Your task to perform on an android device: Open internet settings Image 0: 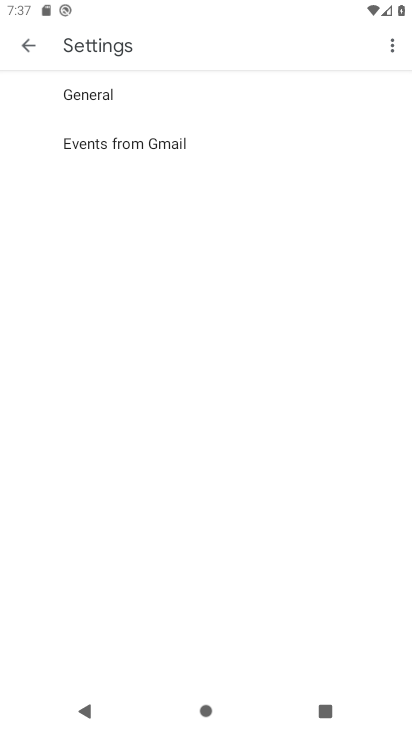
Step 0: press home button
Your task to perform on an android device: Open internet settings Image 1: 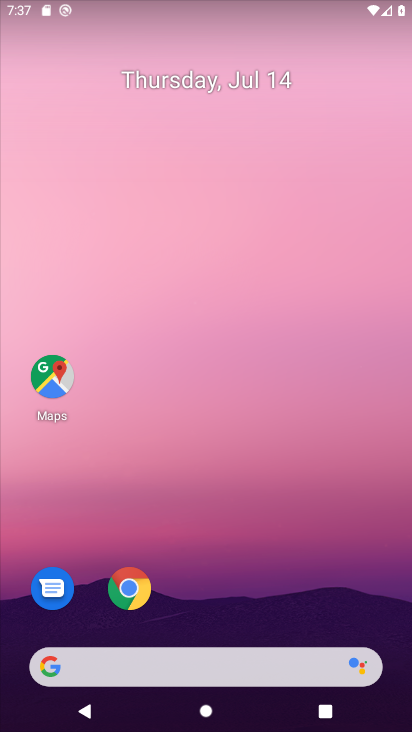
Step 1: drag from (368, 579) to (389, 89)
Your task to perform on an android device: Open internet settings Image 2: 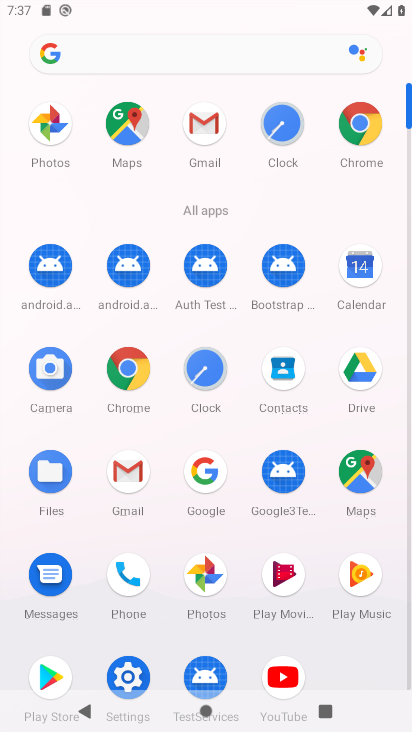
Step 2: drag from (385, 643) to (386, 462)
Your task to perform on an android device: Open internet settings Image 3: 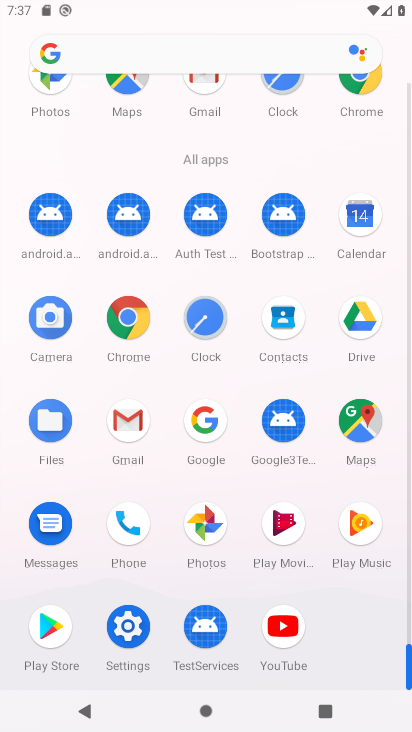
Step 3: click (132, 626)
Your task to perform on an android device: Open internet settings Image 4: 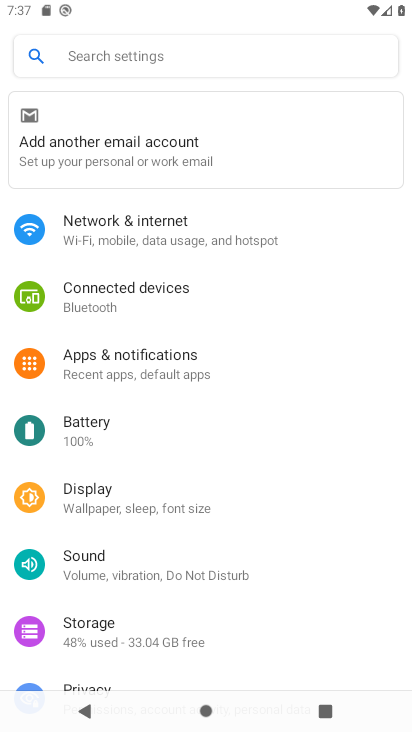
Step 4: drag from (329, 498) to (340, 415)
Your task to perform on an android device: Open internet settings Image 5: 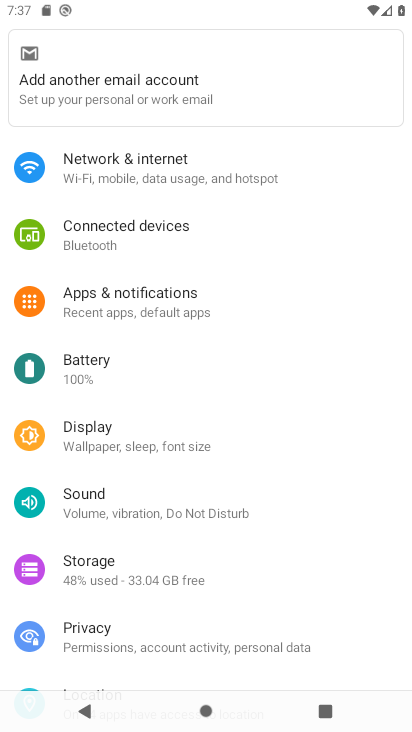
Step 5: drag from (343, 535) to (344, 416)
Your task to perform on an android device: Open internet settings Image 6: 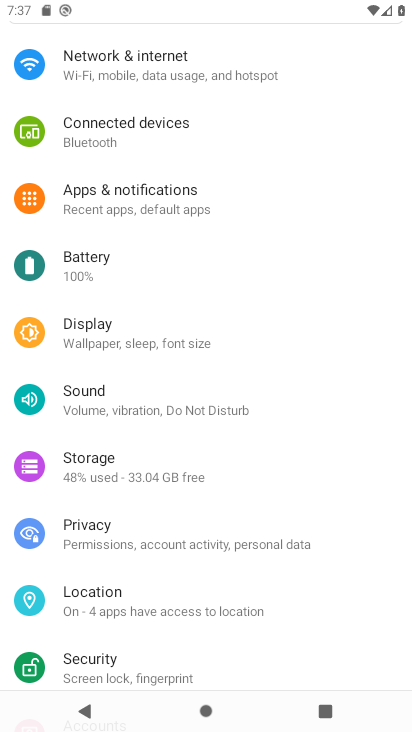
Step 6: drag from (346, 546) to (354, 479)
Your task to perform on an android device: Open internet settings Image 7: 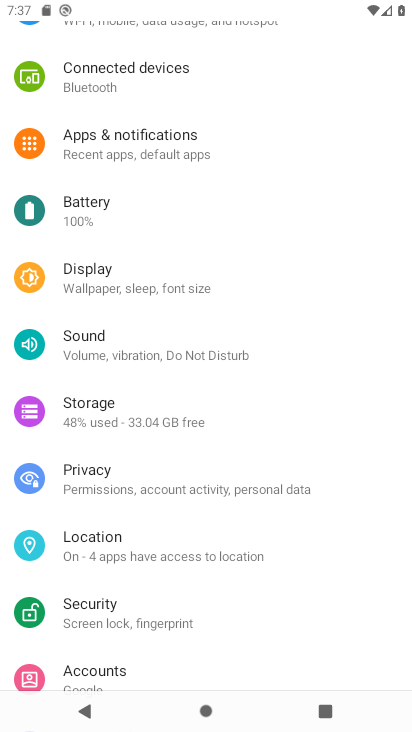
Step 7: drag from (354, 568) to (352, 366)
Your task to perform on an android device: Open internet settings Image 8: 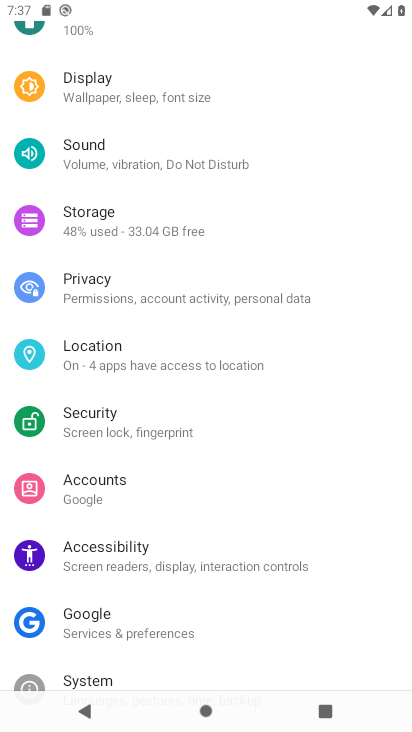
Step 8: drag from (342, 503) to (342, 313)
Your task to perform on an android device: Open internet settings Image 9: 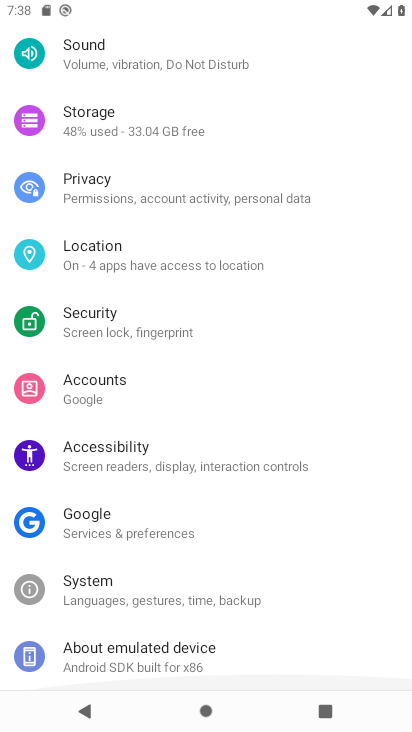
Step 9: drag from (345, 289) to (344, 380)
Your task to perform on an android device: Open internet settings Image 10: 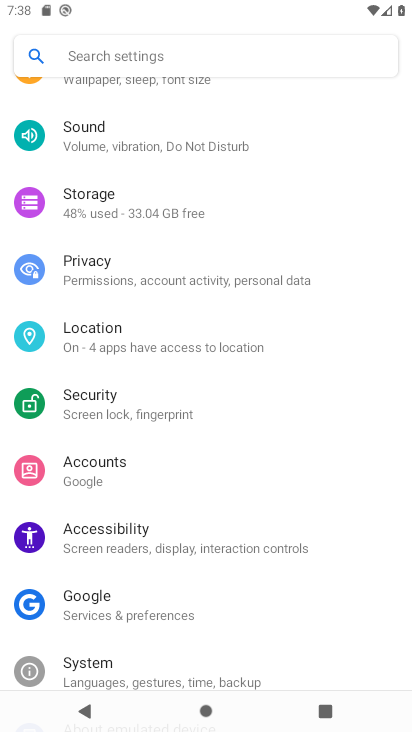
Step 10: drag from (338, 338) to (340, 399)
Your task to perform on an android device: Open internet settings Image 11: 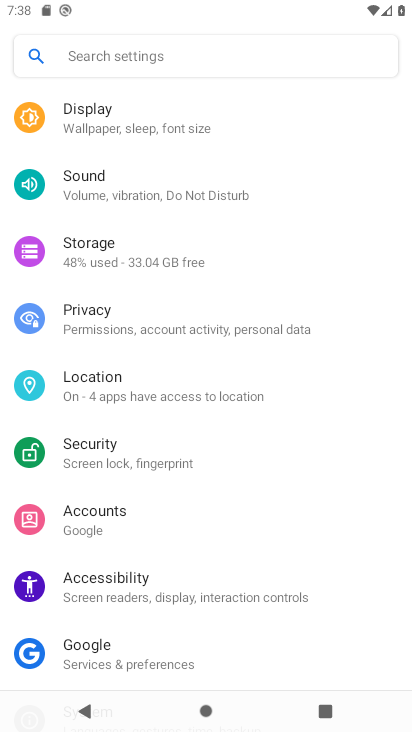
Step 11: drag from (336, 337) to (341, 413)
Your task to perform on an android device: Open internet settings Image 12: 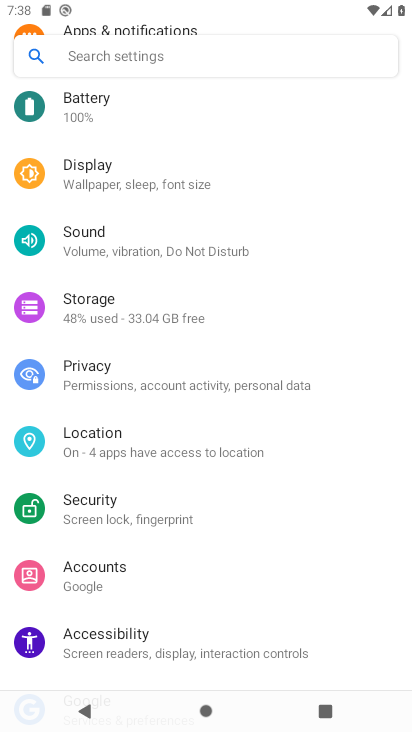
Step 12: drag from (339, 320) to (339, 412)
Your task to perform on an android device: Open internet settings Image 13: 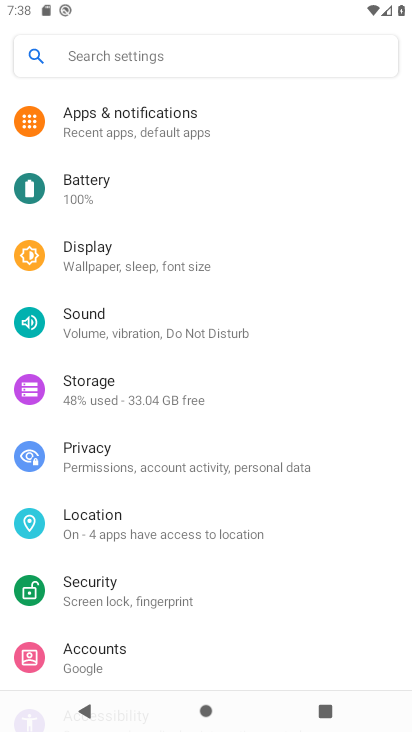
Step 13: drag from (336, 345) to (337, 430)
Your task to perform on an android device: Open internet settings Image 14: 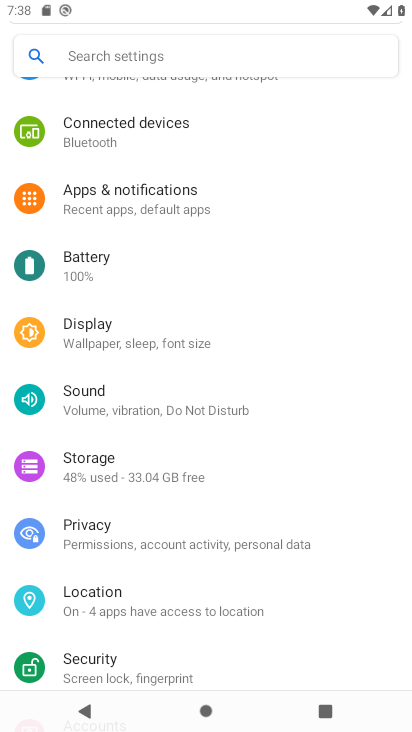
Step 14: drag from (335, 339) to (339, 423)
Your task to perform on an android device: Open internet settings Image 15: 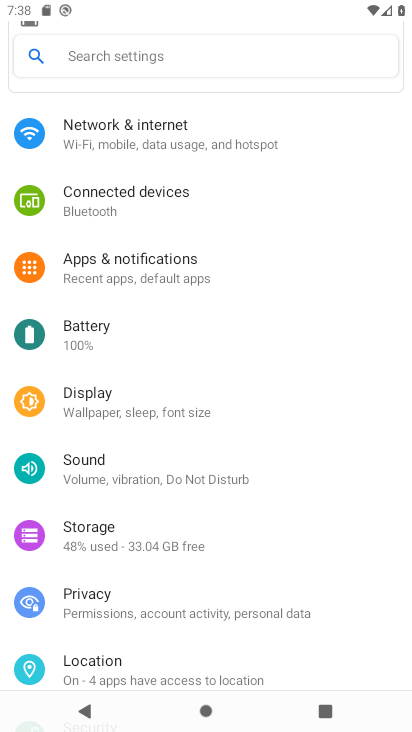
Step 15: drag from (317, 332) to (331, 457)
Your task to perform on an android device: Open internet settings Image 16: 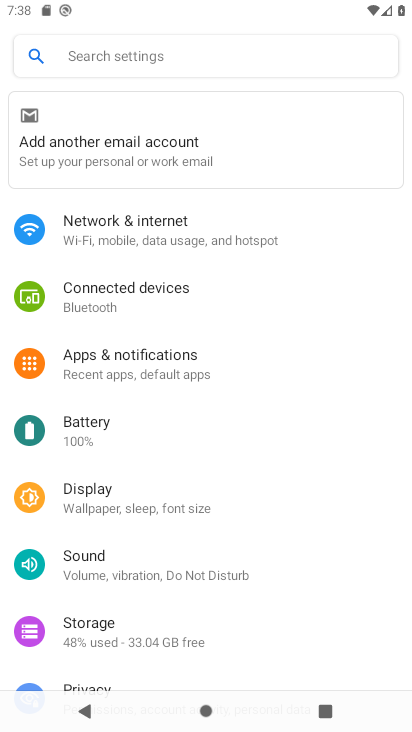
Step 16: drag from (319, 344) to (319, 459)
Your task to perform on an android device: Open internet settings Image 17: 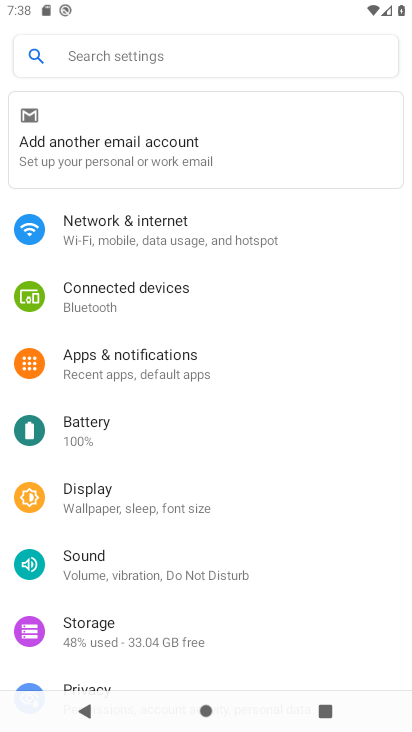
Step 17: click (252, 243)
Your task to perform on an android device: Open internet settings Image 18: 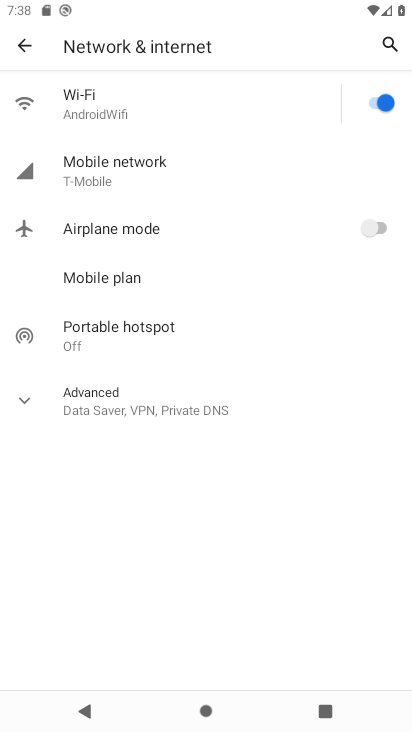
Step 18: task complete